Your task to perform on an android device: Open maps Image 0: 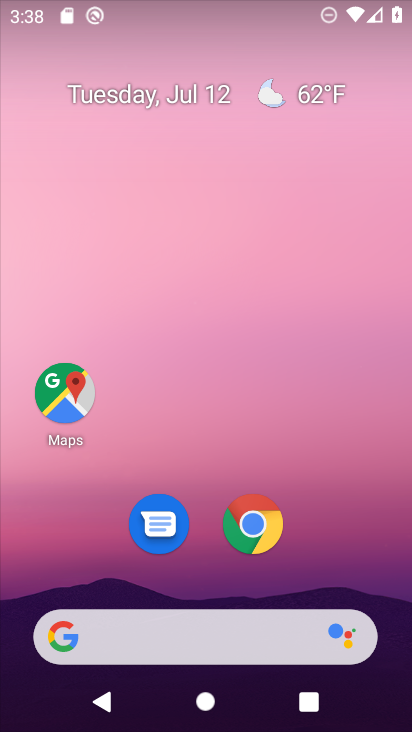
Step 0: click (76, 385)
Your task to perform on an android device: Open maps Image 1: 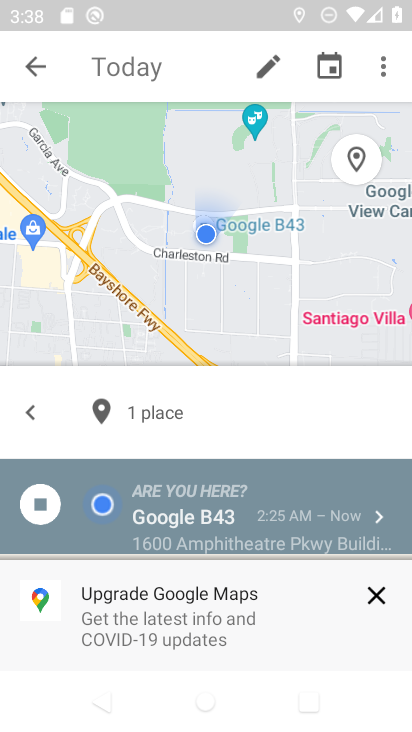
Step 1: click (30, 62)
Your task to perform on an android device: Open maps Image 2: 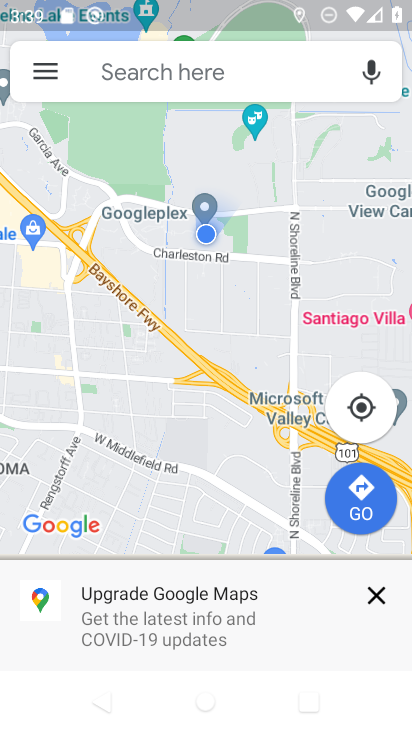
Step 2: task complete